Your task to perform on an android device: Search for pizza restaurants on Maps Image 0: 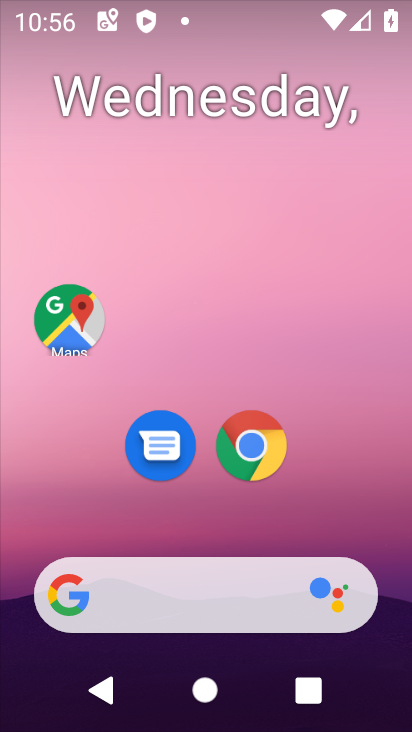
Step 0: click (58, 314)
Your task to perform on an android device: Search for pizza restaurants on Maps Image 1: 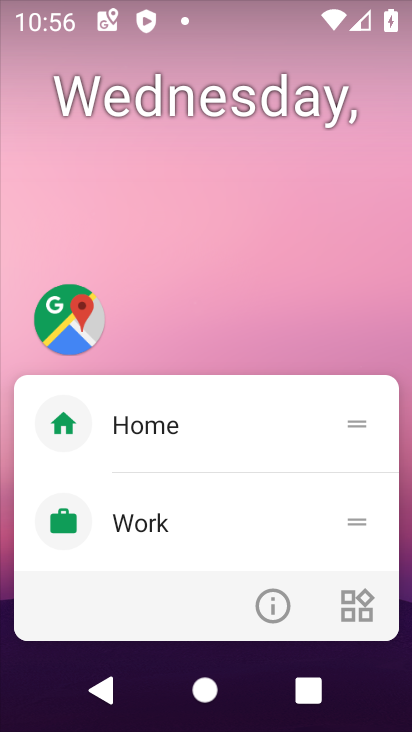
Step 1: click (61, 318)
Your task to perform on an android device: Search for pizza restaurants on Maps Image 2: 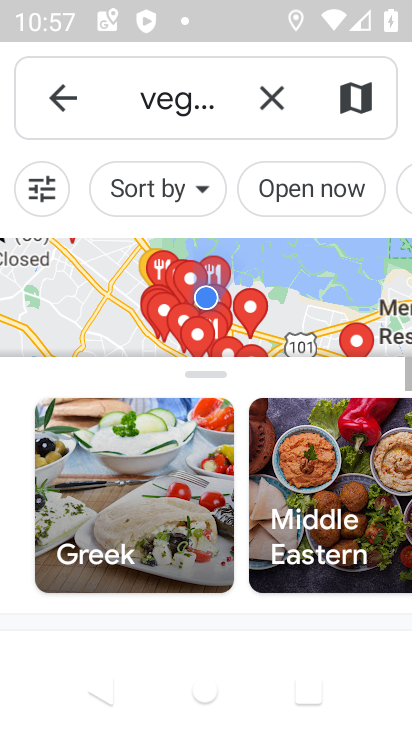
Step 2: click (261, 94)
Your task to perform on an android device: Search for pizza restaurants on Maps Image 3: 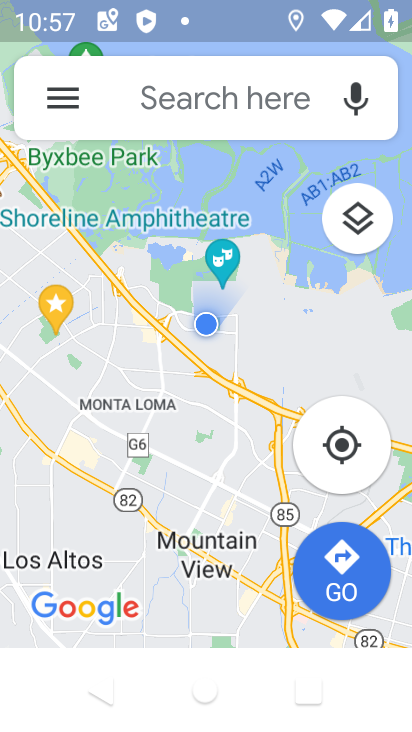
Step 3: click (209, 88)
Your task to perform on an android device: Search for pizza restaurants on Maps Image 4: 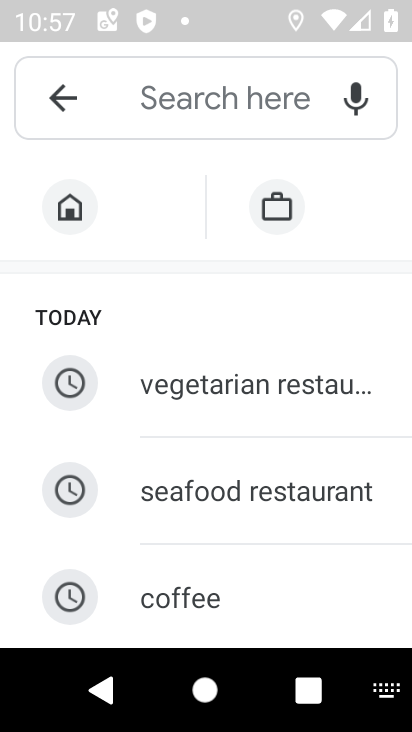
Step 4: drag from (193, 580) to (238, 304)
Your task to perform on an android device: Search for pizza restaurants on Maps Image 5: 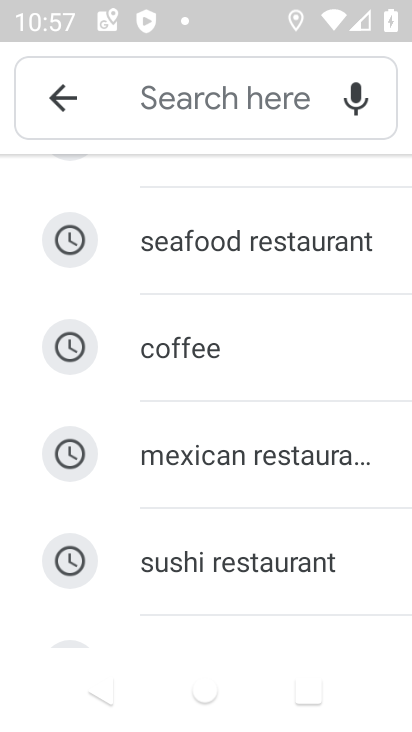
Step 5: drag from (213, 567) to (310, 155)
Your task to perform on an android device: Search for pizza restaurants on Maps Image 6: 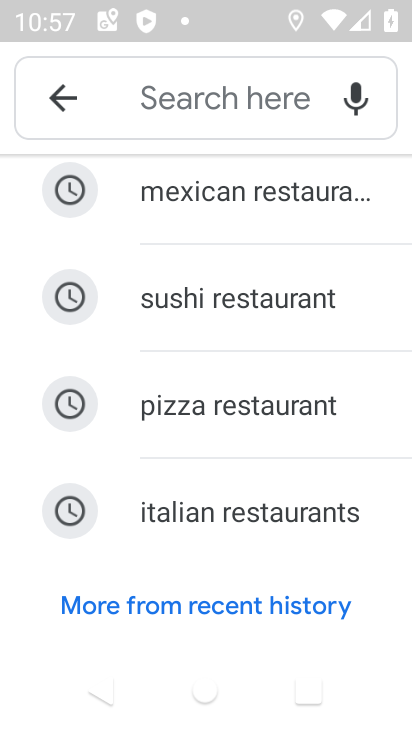
Step 6: click (208, 410)
Your task to perform on an android device: Search for pizza restaurants on Maps Image 7: 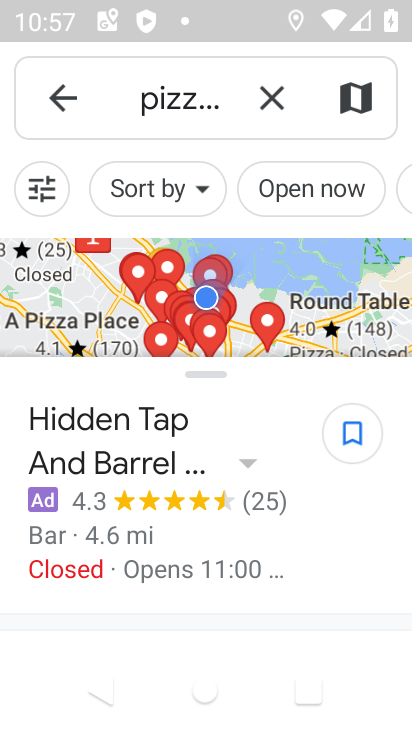
Step 7: task complete